Your task to perform on an android device: turn notification dots on Image 0: 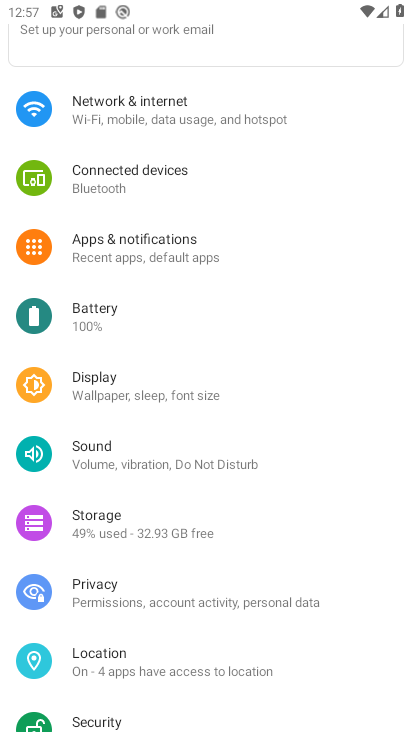
Step 0: press back button
Your task to perform on an android device: turn notification dots on Image 1: 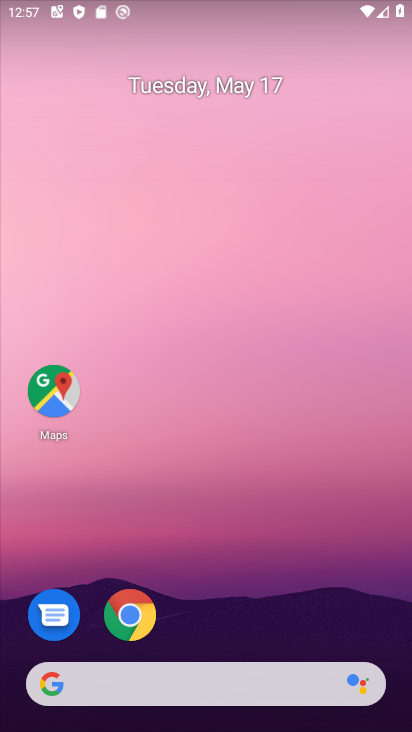
Step 1: drag from (288, 611) to (297, 182)
Your task to perform on an android device: turn notification dots on Image 2: 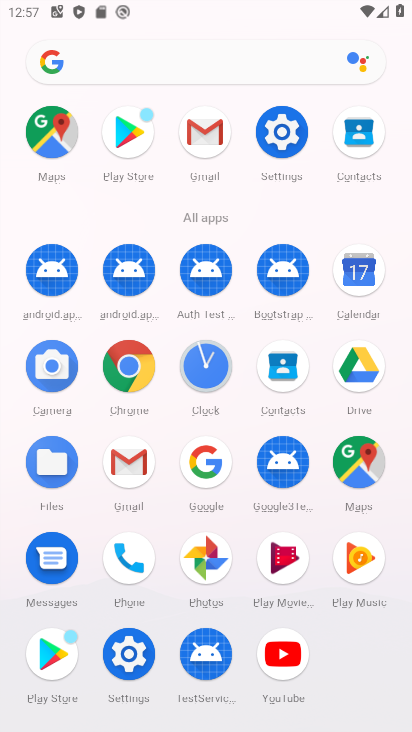
Step 2: click (283, 131)
Your task to perform on an android device: turn notification dots on Image 3: 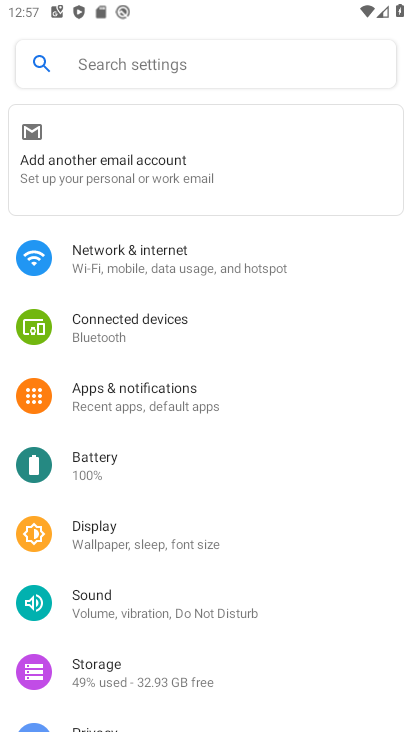
Step 3: click (138, 394)
Your task to perform on an android device: turn notification dots on Image 4: 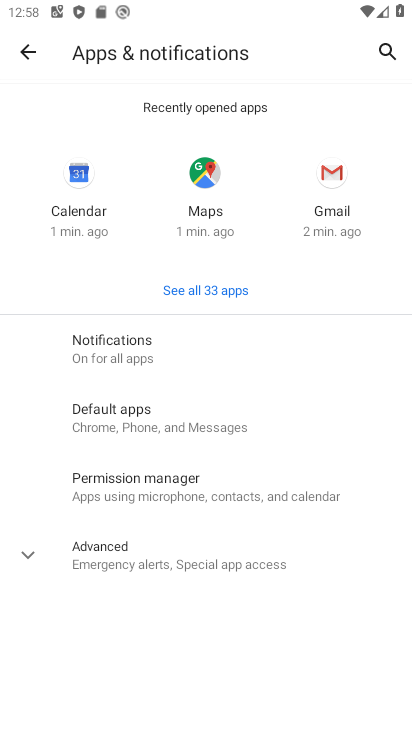
Step 4: click (105, 342)
Your task to perform on an android device: turn notification dots on Image 5: 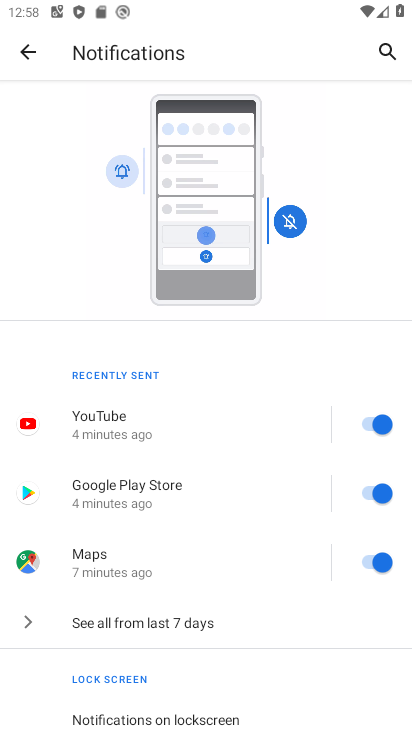
Step 5: drag from (168, 546) to (195, 433)
Your task to perform on an android device: turn notification dots on Image 6: 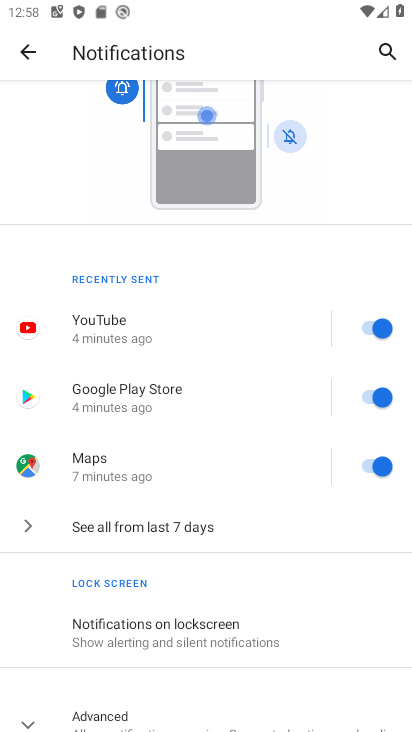
Step 6: drag from (152, 601) to (206, 476)
Your task to perform on an android device: turn notification dots on Image 7: 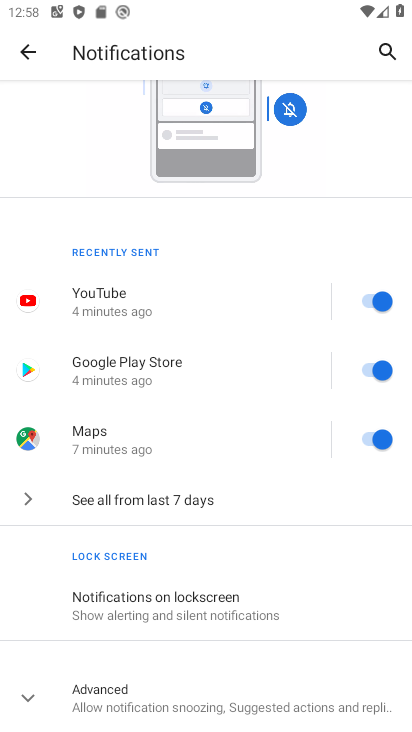
Step 7: click (98, 694)
Your task to perform on an android device: turn notification dots on Image 8: 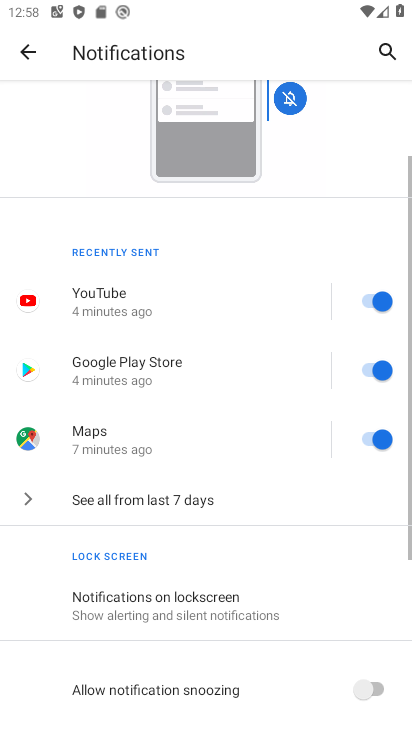
Step 8: task complete